Your task to perform on an android device: Go to sound settings Image 0: 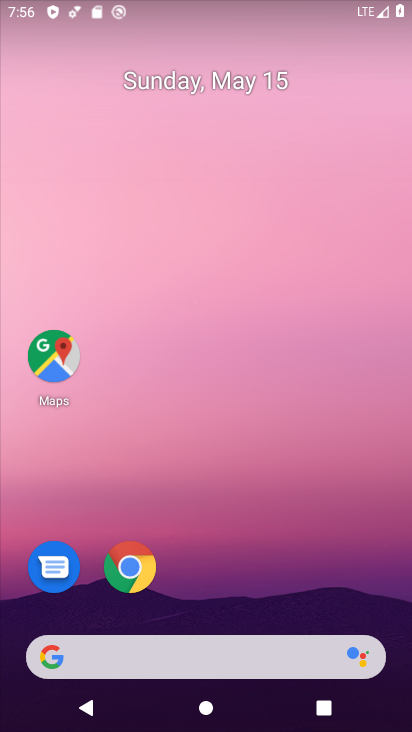
Step 0: drag from (225, 583) to (295, 110)
Your task to perform on an android device: Go to sound settings Image 1: 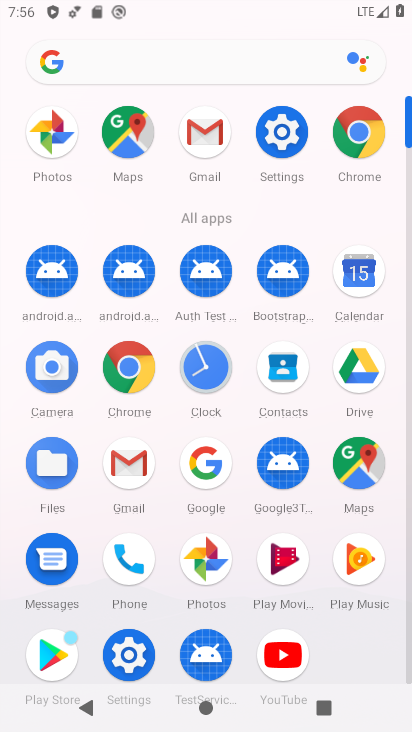
Step 1: click (301, 128)
Your task to perform on an android device: Go to sound settings Image 2: 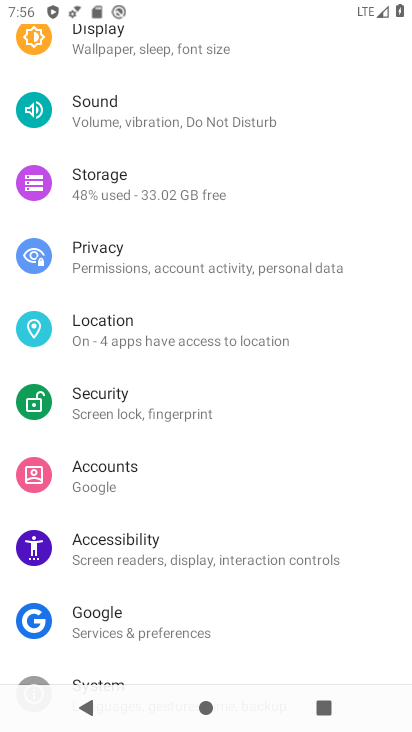
Step 2: click (132, 103)
Your task to perform on an android device: Go to sound settings Image 3: 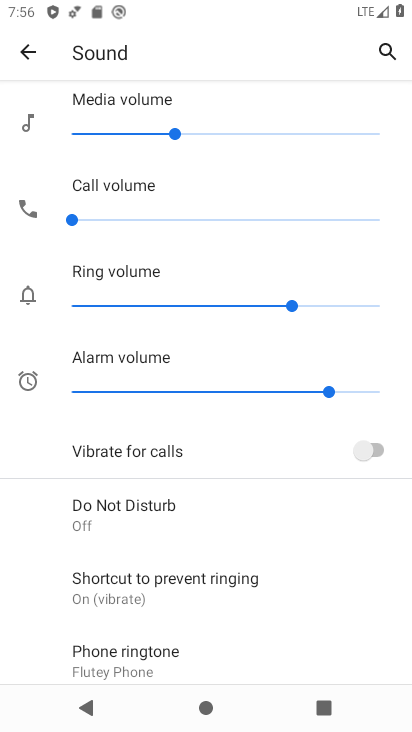
Step 3: task complete